Your task to perform on an android device: open app "AliExpress" (install if not already installed) Image 0: 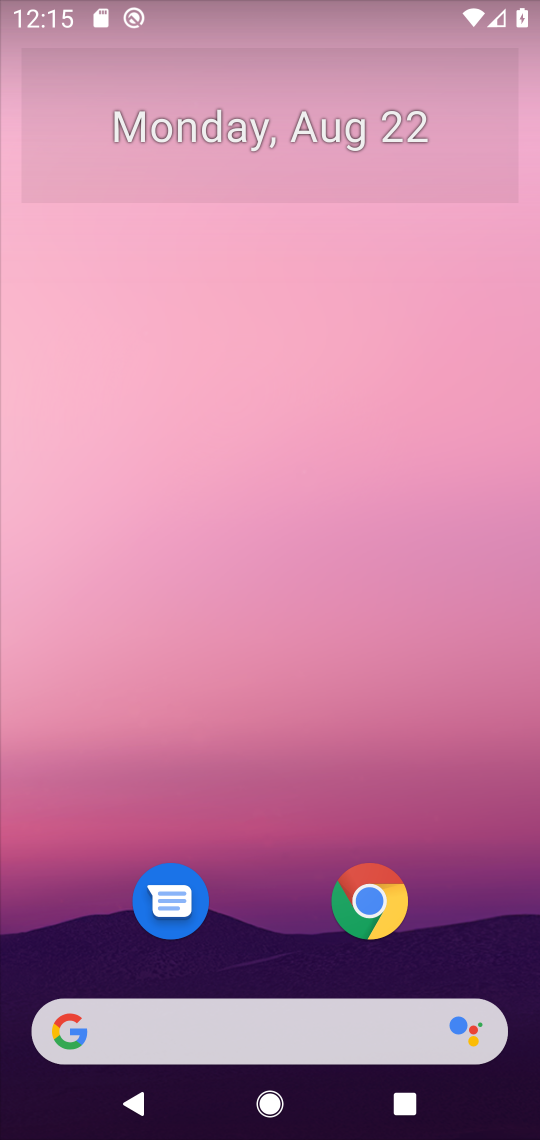
Step 0: drag from (249, 971) to (251, 53)
Your task to perform on an android device: open app "AliExpress" (install if not already installed) Image 1: 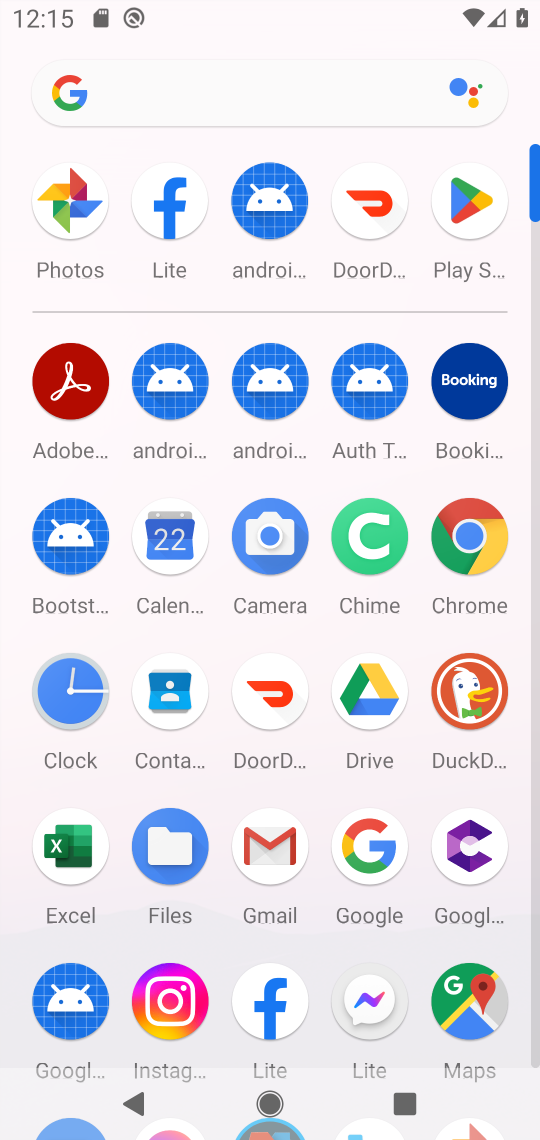
Step 1: click (452, 224)
Your task to perform on an android device: open app "AliExpress" (install if not already installed) Image 2: 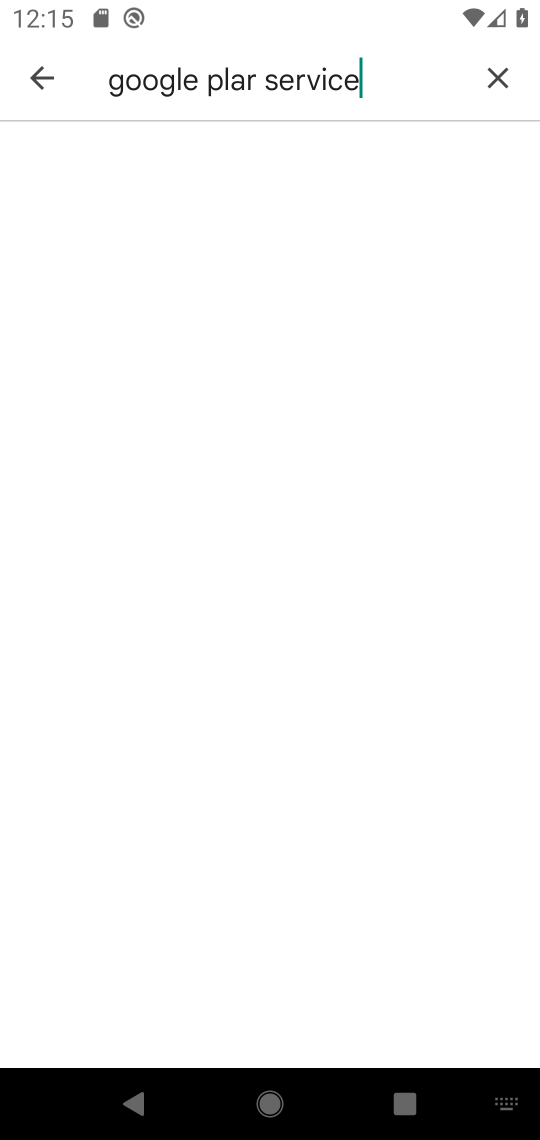
Step 2: click (496, 96)
Your task to perform on an android device: open app "AliExpress" (install if not already installed) Image 3: 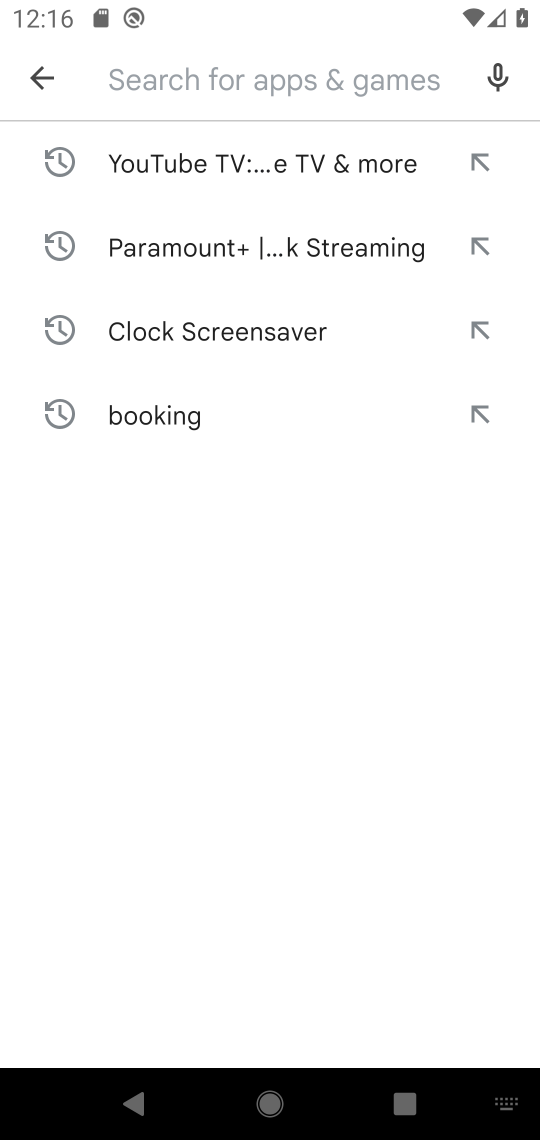
Step 3: type "ali express"
Your task to perform on an android device: open app "AliExpress" (install if not already installed) Image 4: 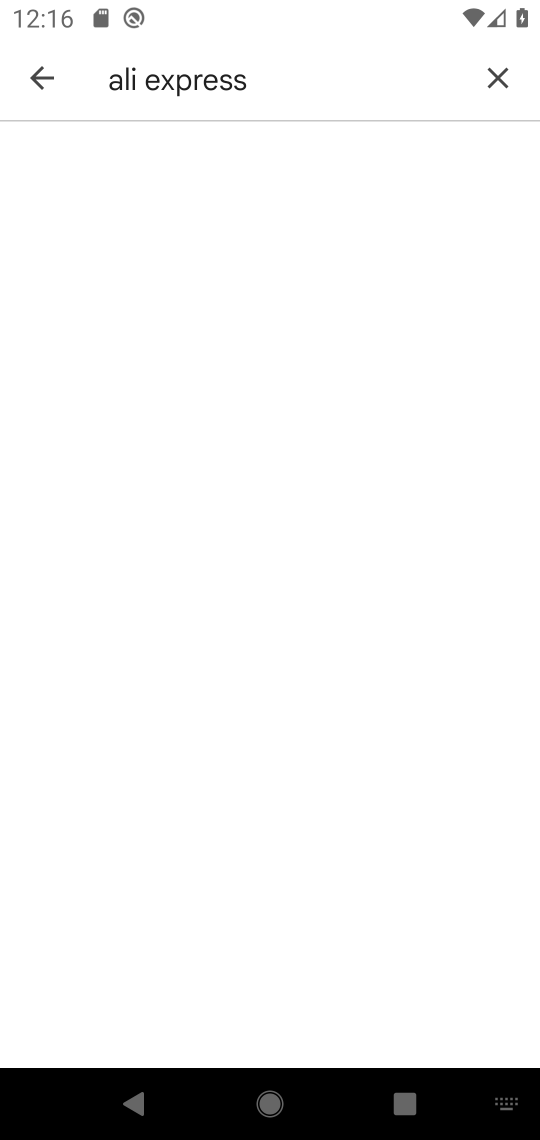
Step 4: task complete